Your task to perform on an android device: What is the recent news? Image 0: 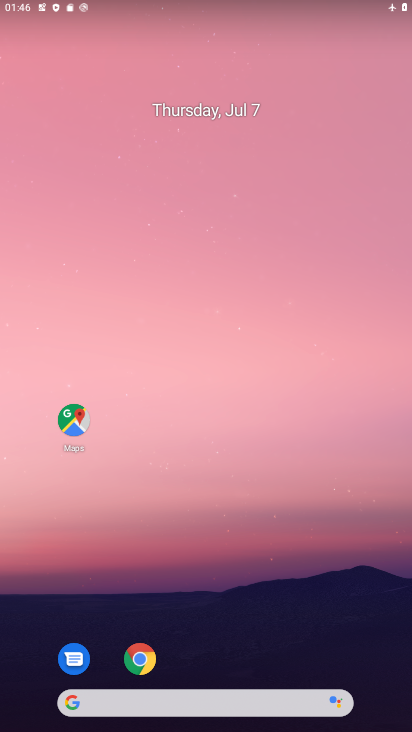
Step 0: drag from (222, 605) to (225, 186)
Your task to perform on an android device: What is the recent news? Image 1: 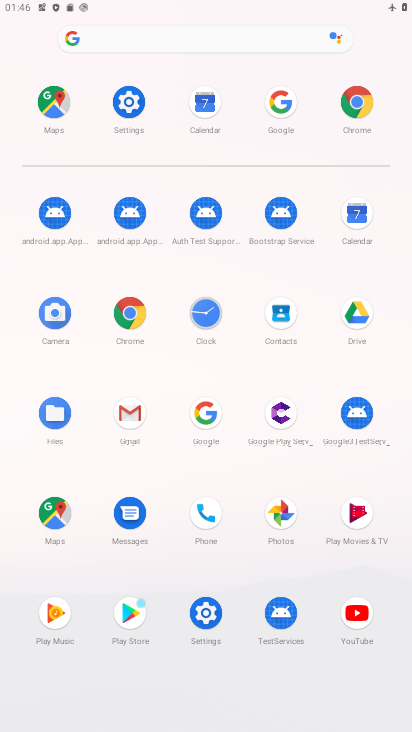
Step 1: click (280, 103)
Your task to perform on an android device: What is the recent news? Image 2: 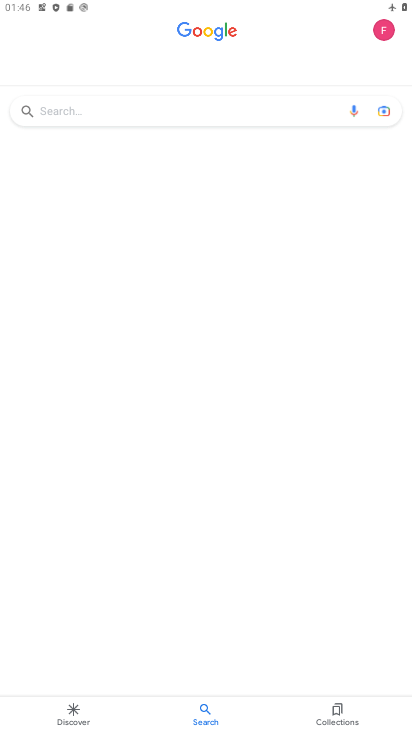
Step 2: click (155, 110)
Your task to perform on an android device: What is the recent news? Image 3: 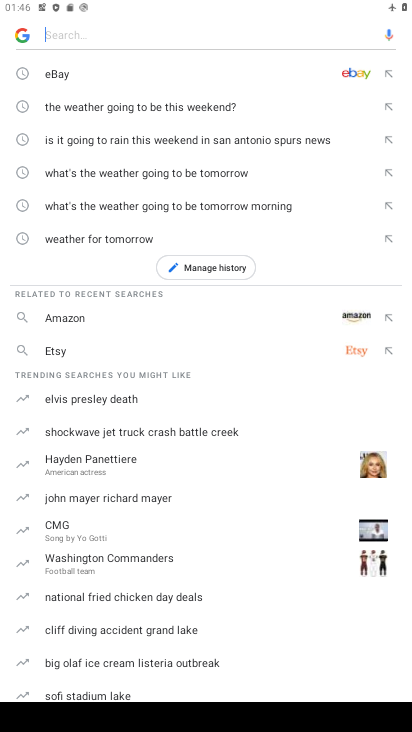
Step 3: type "recent news"
Your task to perform on an android device: What is the recent news? Image 4: 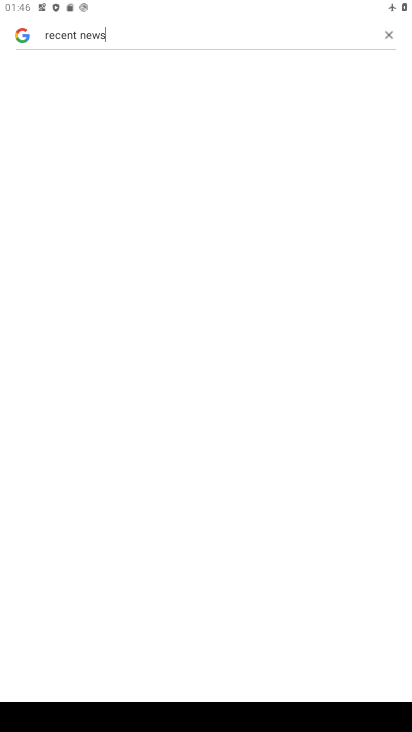
Step 4: task complete